Your task to perform on an android device: open sync settings in chrome Image 0: 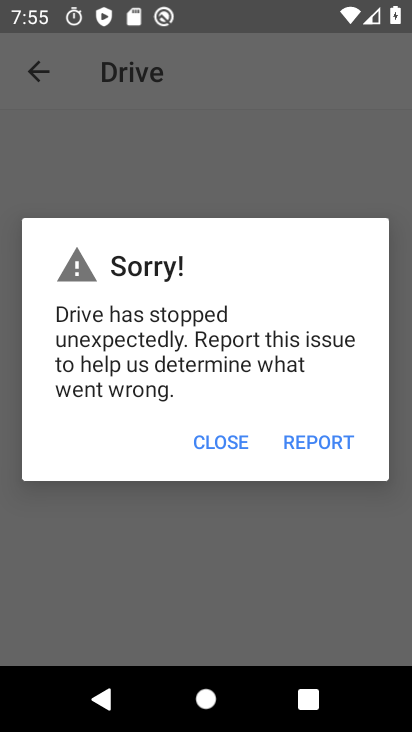
Step 0: press home button
Your task to perform on an android device: open sync settings in chrome Image 1: 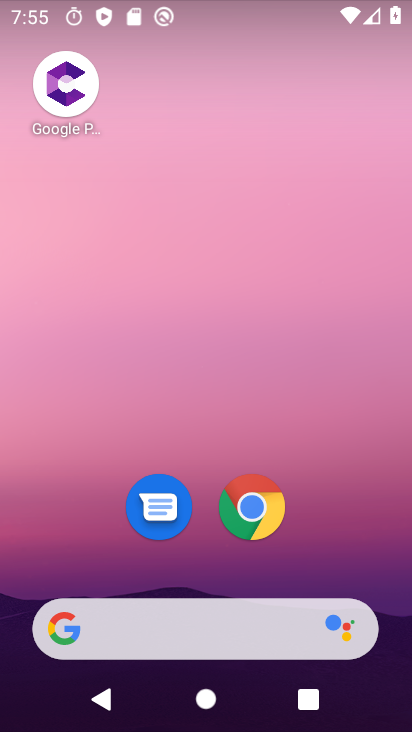
Step 1: click (263, 503)
Your task to perform on an android device: open sync settings in chrome Image 2: 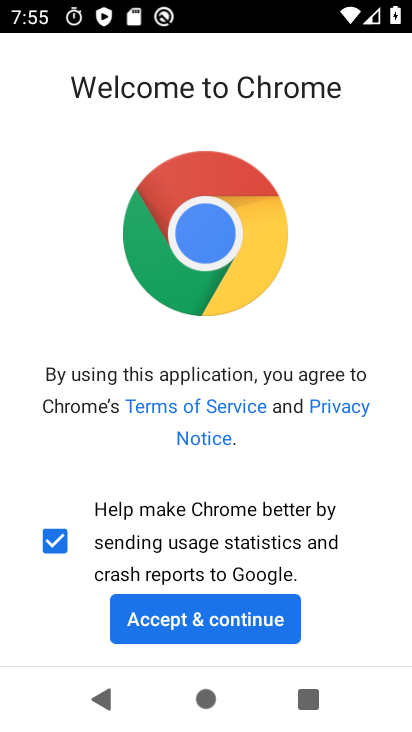
Step 2: click (243, 603)
Your task to perform on an android device: open sync settings in chrome Image 3: 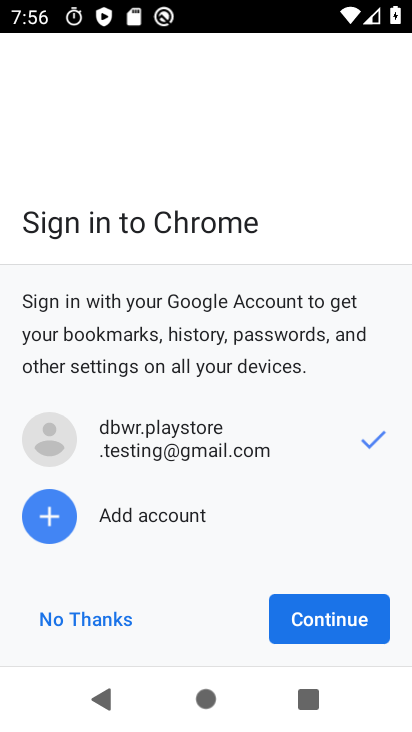
Step 3: click (67, 601)
Your task to perform on an android device: open sync settings in chrome Image 4: 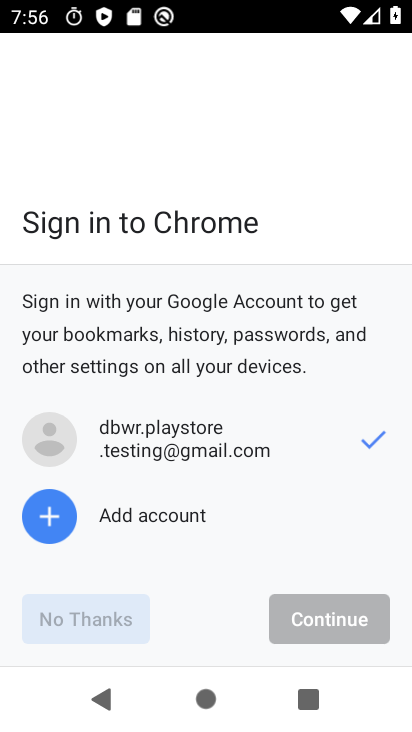
Step 4: click (67, 601)
Your task to perform on an android device: open sync settings in chrome Image 5: 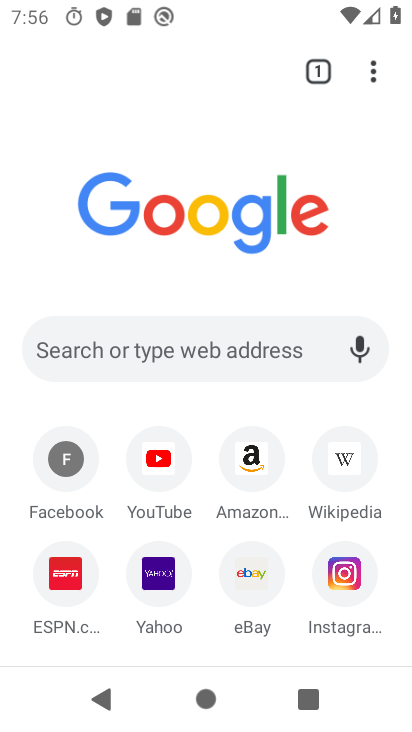
Step 5: drag from (381, 69) to (152, 510)
Your task to perform on an android device: open sync settings in chrome Image 6: 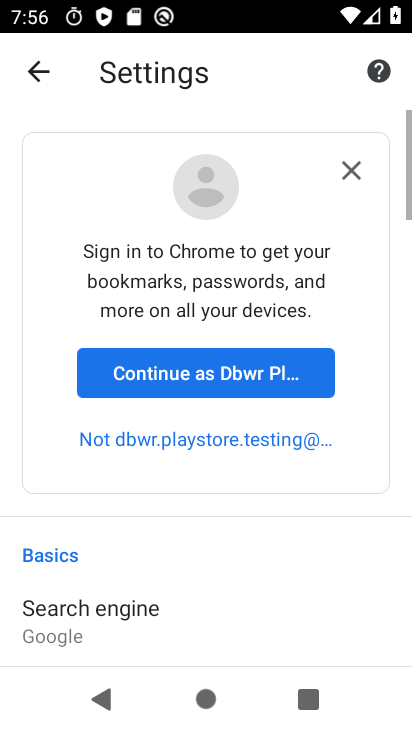
Step 6: drag from (142, 587) to (171, 162)
Your task to perform on an android device: open sync settings in chrome Image 7: 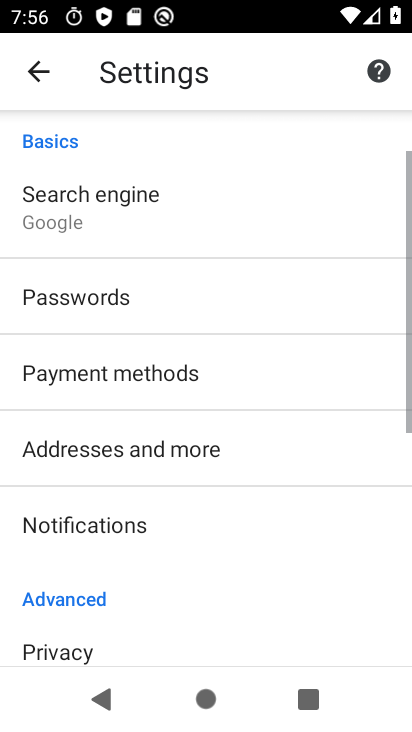
Step 7: drag from (180, 510) to (197, 184)
Your task to perform on an android device: open sync settings in chrome Image 8: 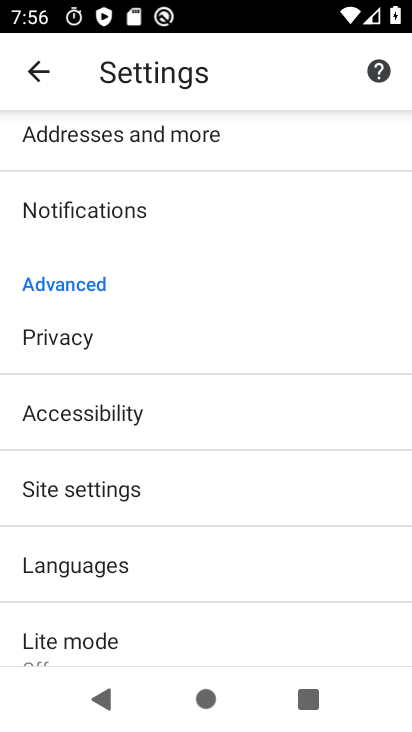
Step 8: click (101, 502)
Your task to perform on an android device: open sync settings in chrome Image 9: 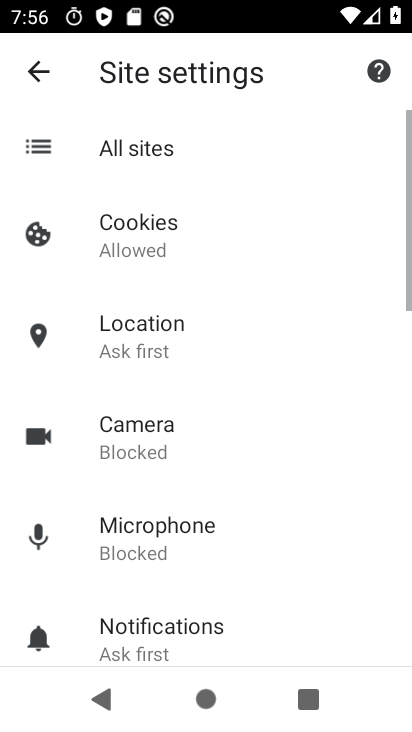
Step 9: drag from (155, 570) to (157, 270)
Your task to perform on an android device: open sync settings in chrome Image 10: 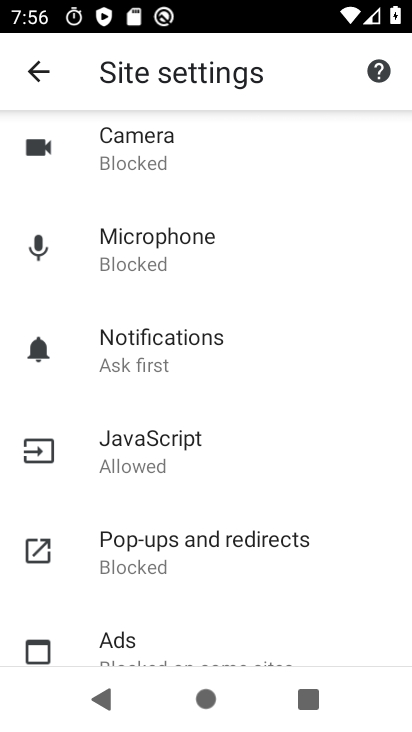
Step 10: drag from (195, 586) to (207, 271)
Your task to perform on an android device: open sync settings in chrome Image 11: 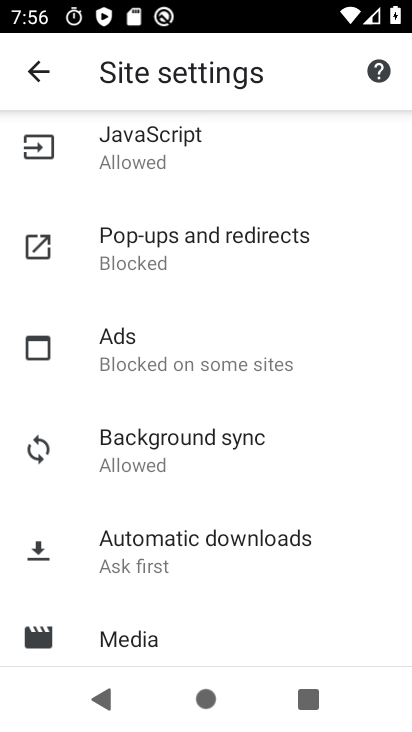
Step 11: click (156, 441)
Your task to perform on an android device: open sync settings in chrome Image 12: 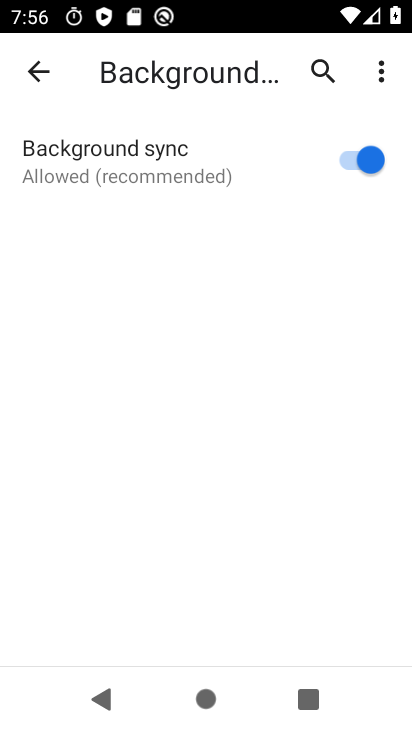
Step 12: task complete